Your task to perform on an android device: open device folders in google photos Image 0: 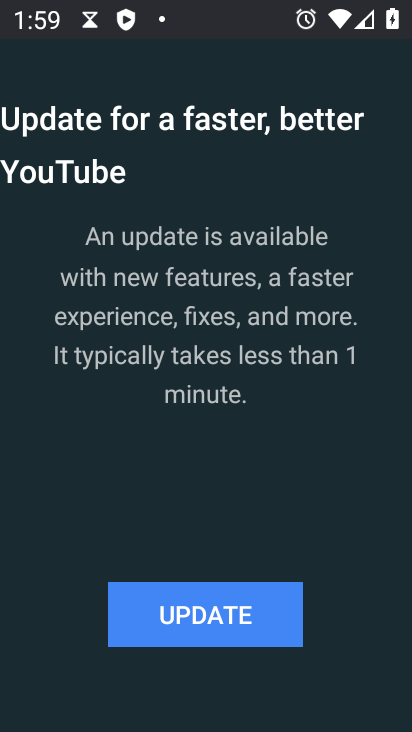
Step 0: press home button
Your task to perform on an android device: open device folders in google photos Image 1: 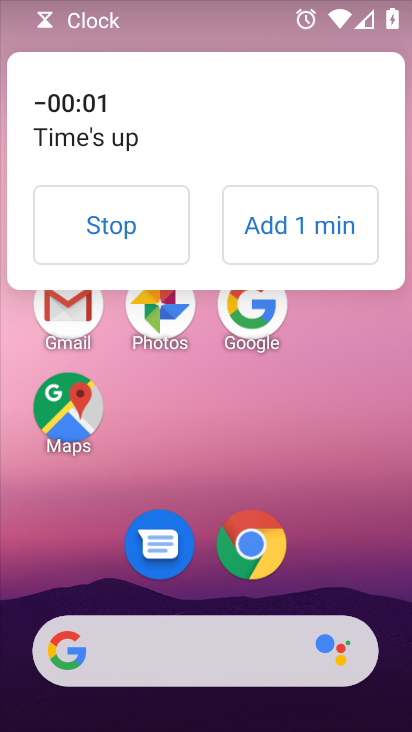
Step 1: click (130, 214)
Your task to perform on an android device: open device folders in google photos Image 2: 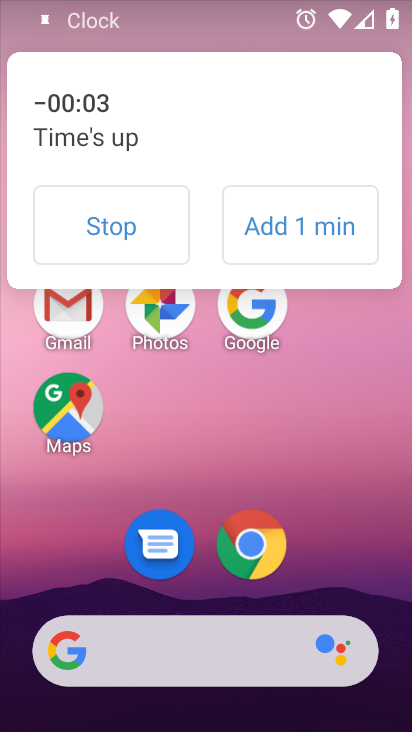
Step 2: click (167, 313)
Your task to perform on an android device: open device folders in google photos Image 3: 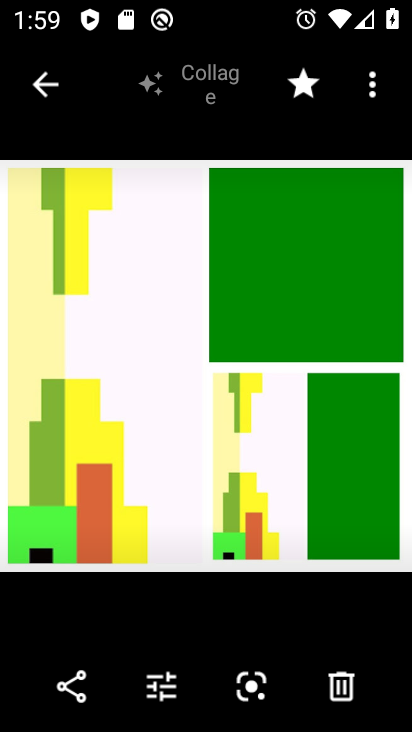
Step 3: click (44, 98)
Your task to perform on an android device: open device folders in google photos Image 4: 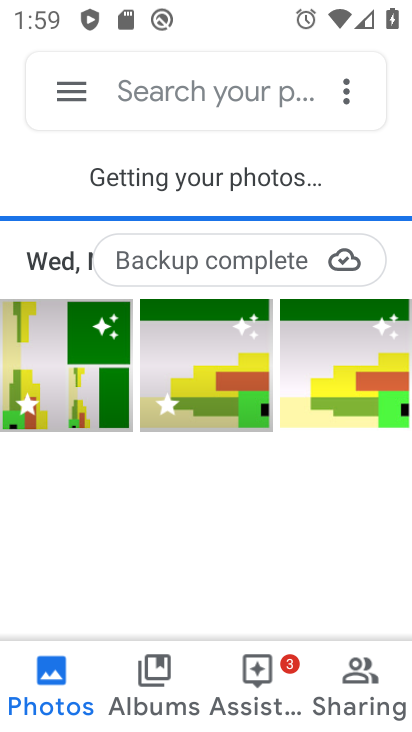
Step 4: drag from (393, 691) to (11, 651)
Your task to perform on an android device: open device folders in google photos Image 5: 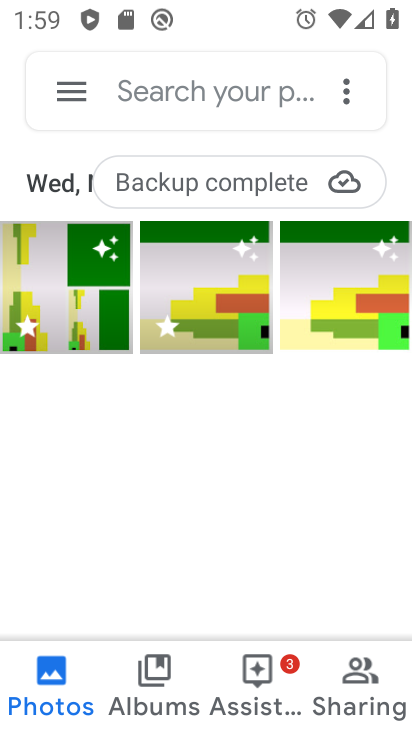
Step 5: drag from (56, 669) to (392, 702)
Your task to perform on an android device: open device folders in google photos Image 6: 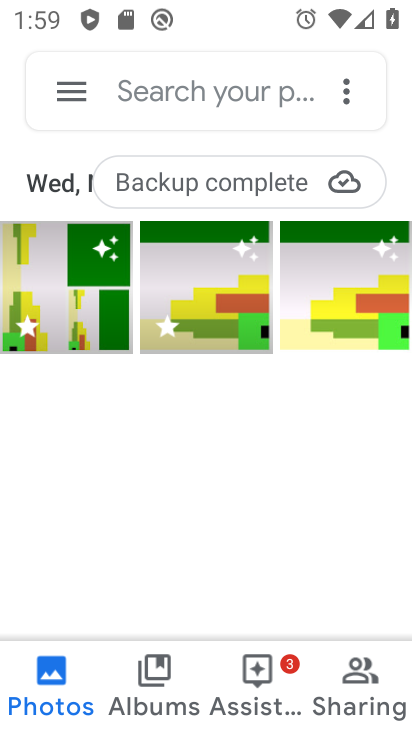
Step 6: drag from (391, 686) to (18, 665)
Your task to perform on an android device: open device folders in google photos Image 7: 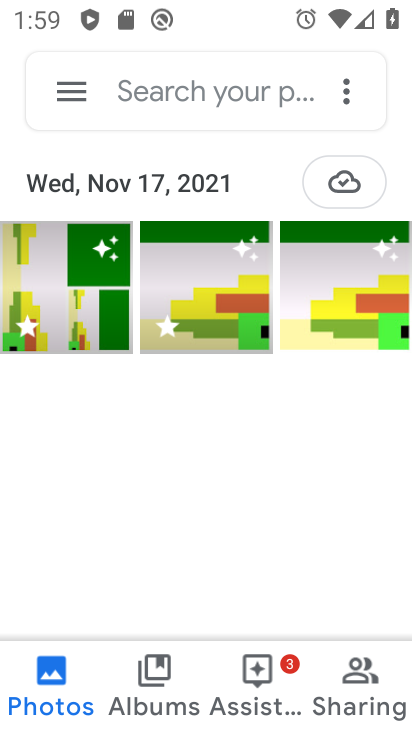
Step 7: click (57, 111)
Your task to perform on an android device: open device folders in google photos Image 8: 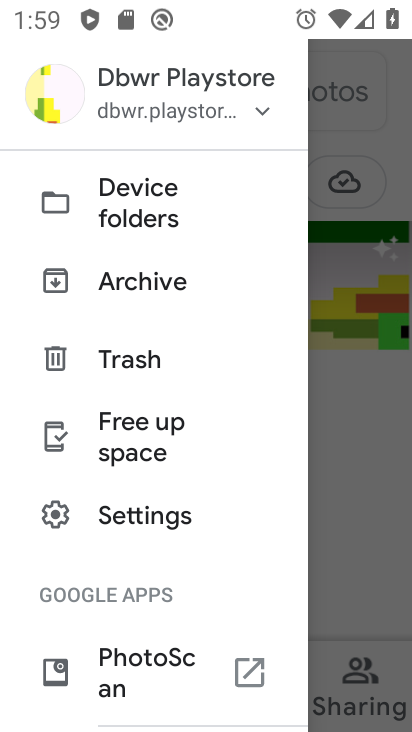
Step 8: click (119, 215)
Your task to perform on an android device: open device folders in google photos Image 9: 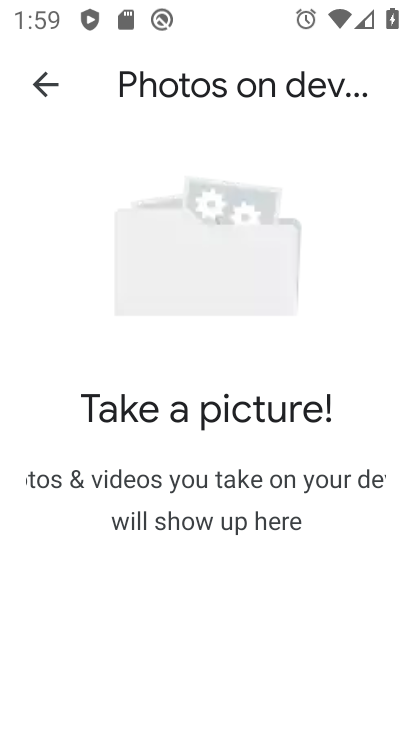
Step 9: task complete